Your task to perform on an android device: set an alarm Image 0: 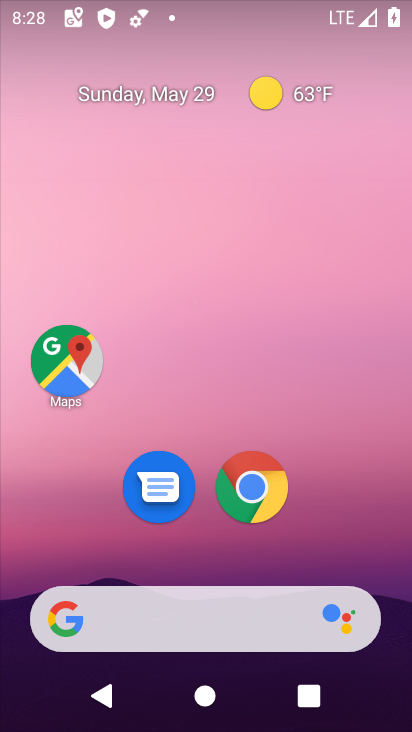
Step 0: drag from (282, 620) to (263, 138)
Your task to perform on an android device: set an alarm Image 1: 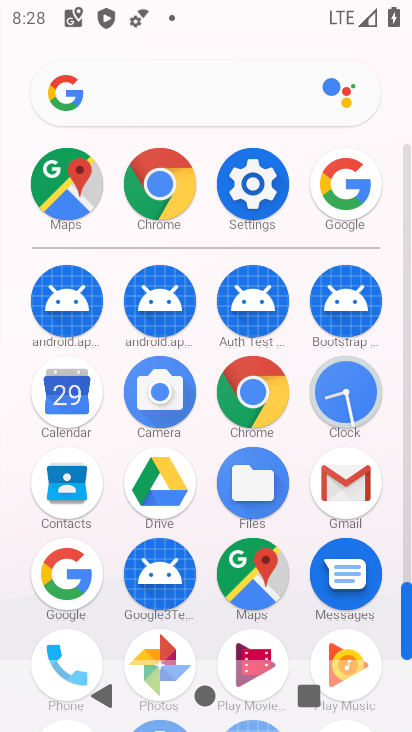
Step 1: click (352, 410)
Your task to perform on an android device: set an alarm Image 2: 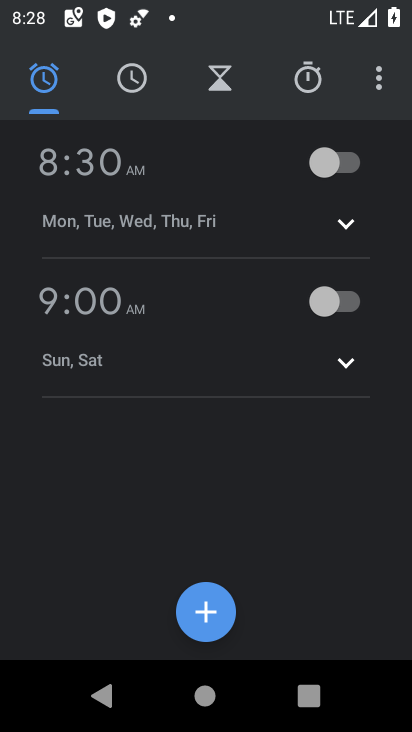
Step 2: click (212, 612)
Your task to perform on an android device: set an alarm Image 3: 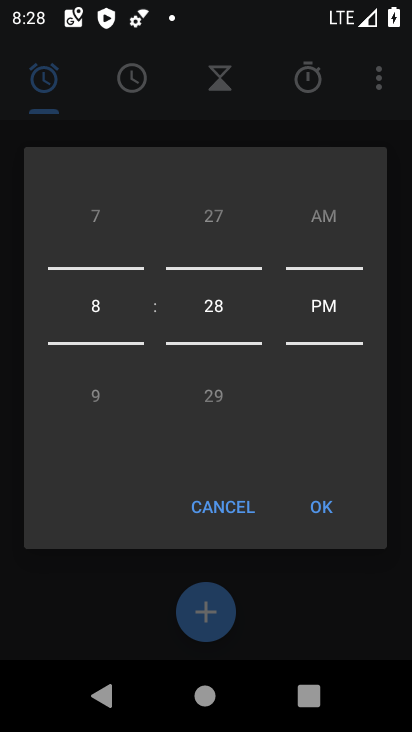
Step 3: click (328, 503)
Your task to perform on an android device: set an alarm Image 4: 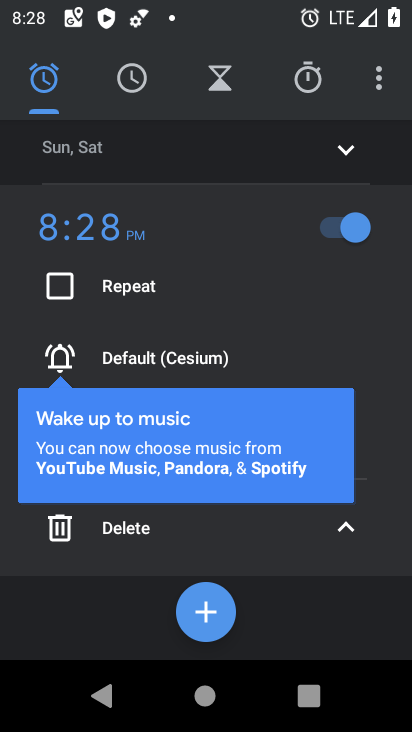
Step 4: task complete